Your task to perform on an android device: Go to Amazon Image 0: 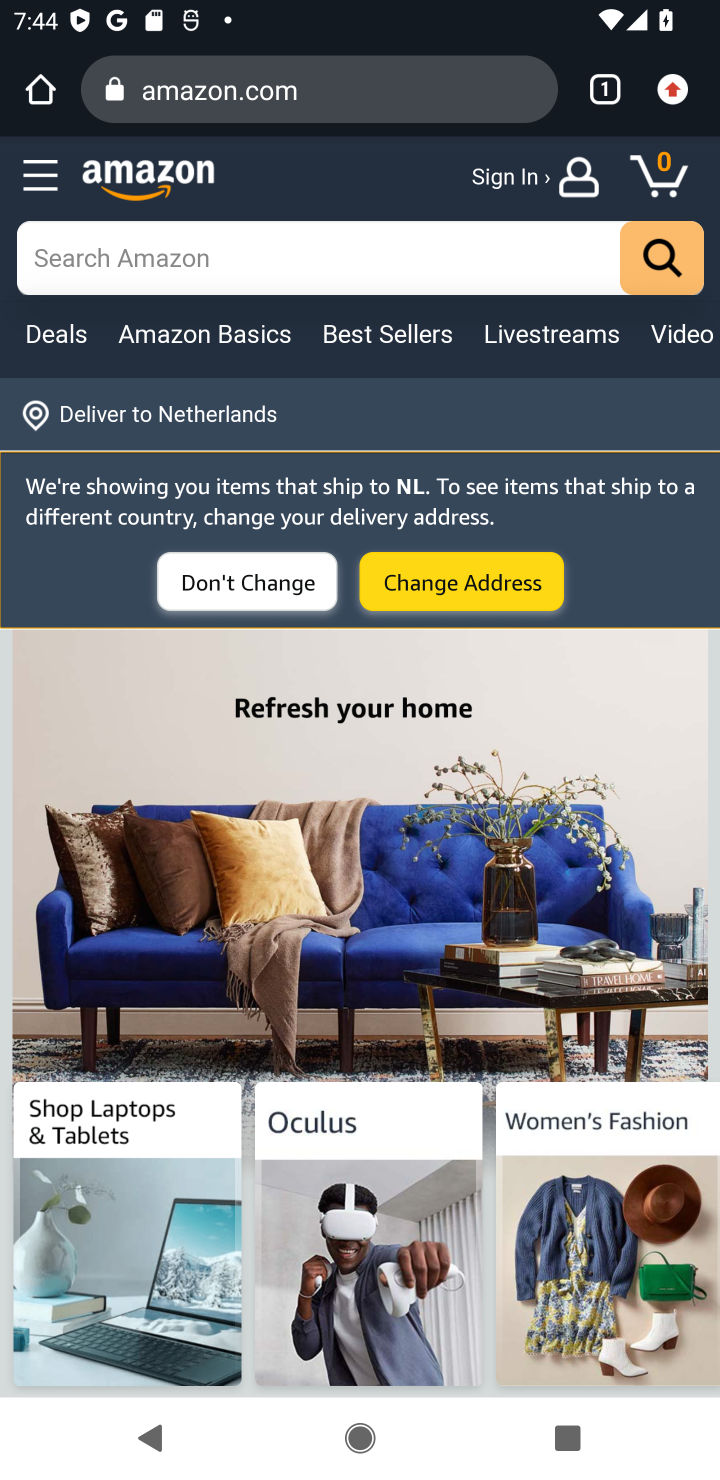
Step 0: press home button
Your task to perform on an android device: Go to Amazon Image 1: 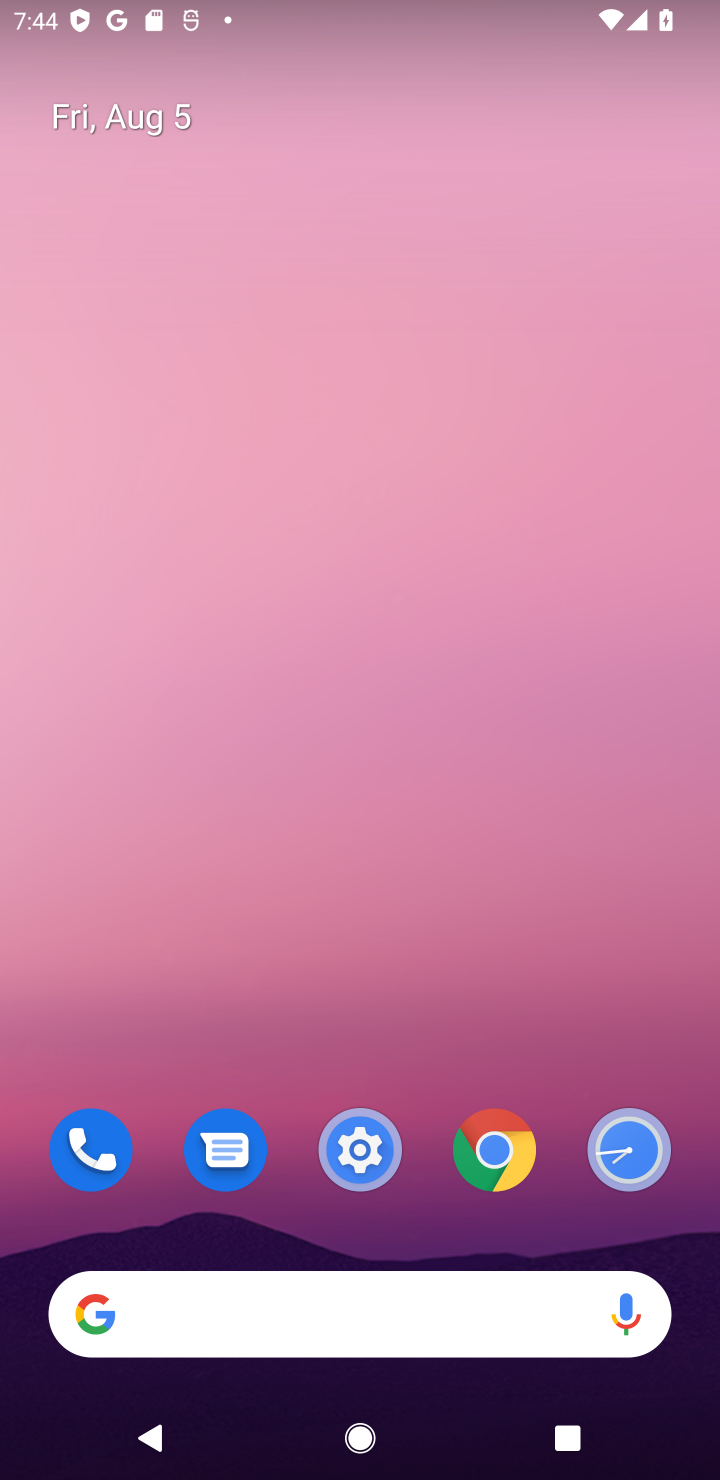
Step 1: drag from (419, 1020) to (435, 413)
Your task to perform on an android device: Go to Amazon Image 2: 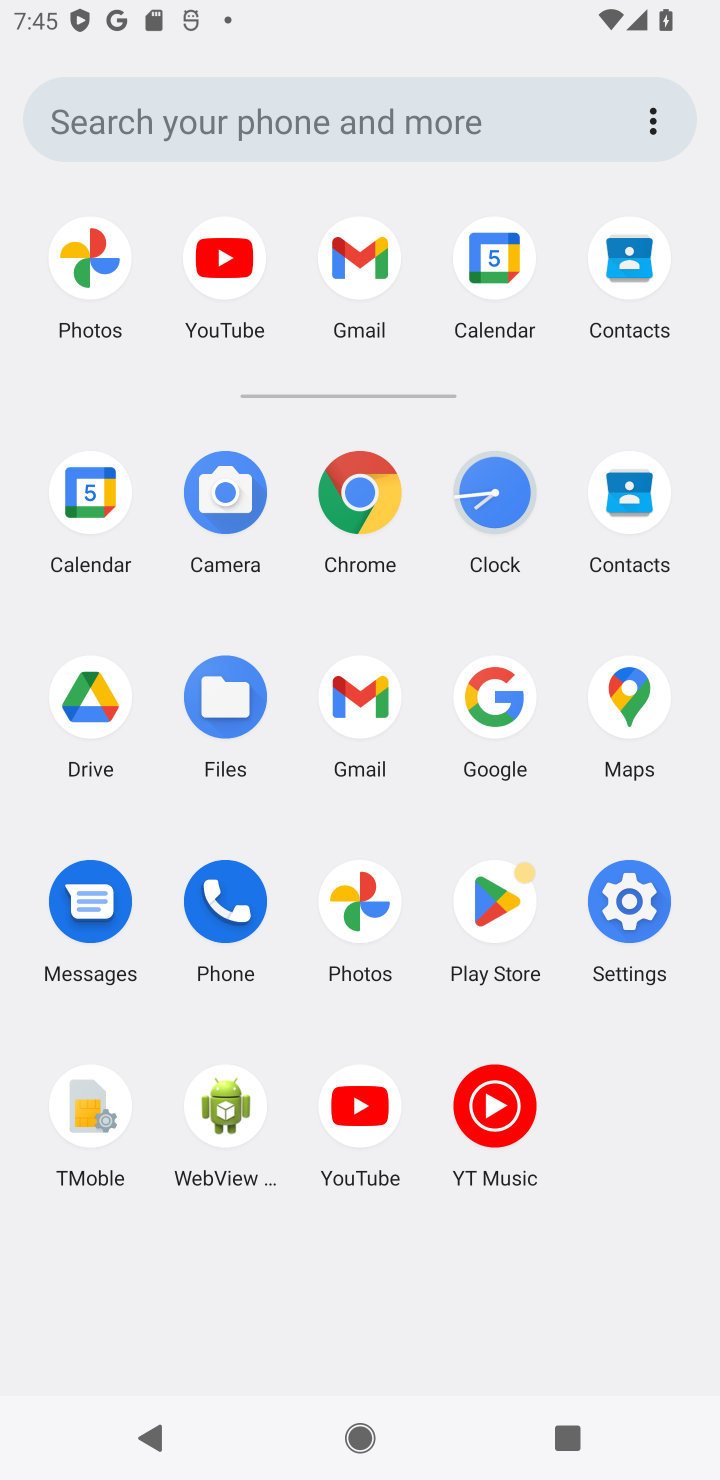
Step 2: click (369, 494)
Your task to perform on an android device: Go to Amazon Image 3: 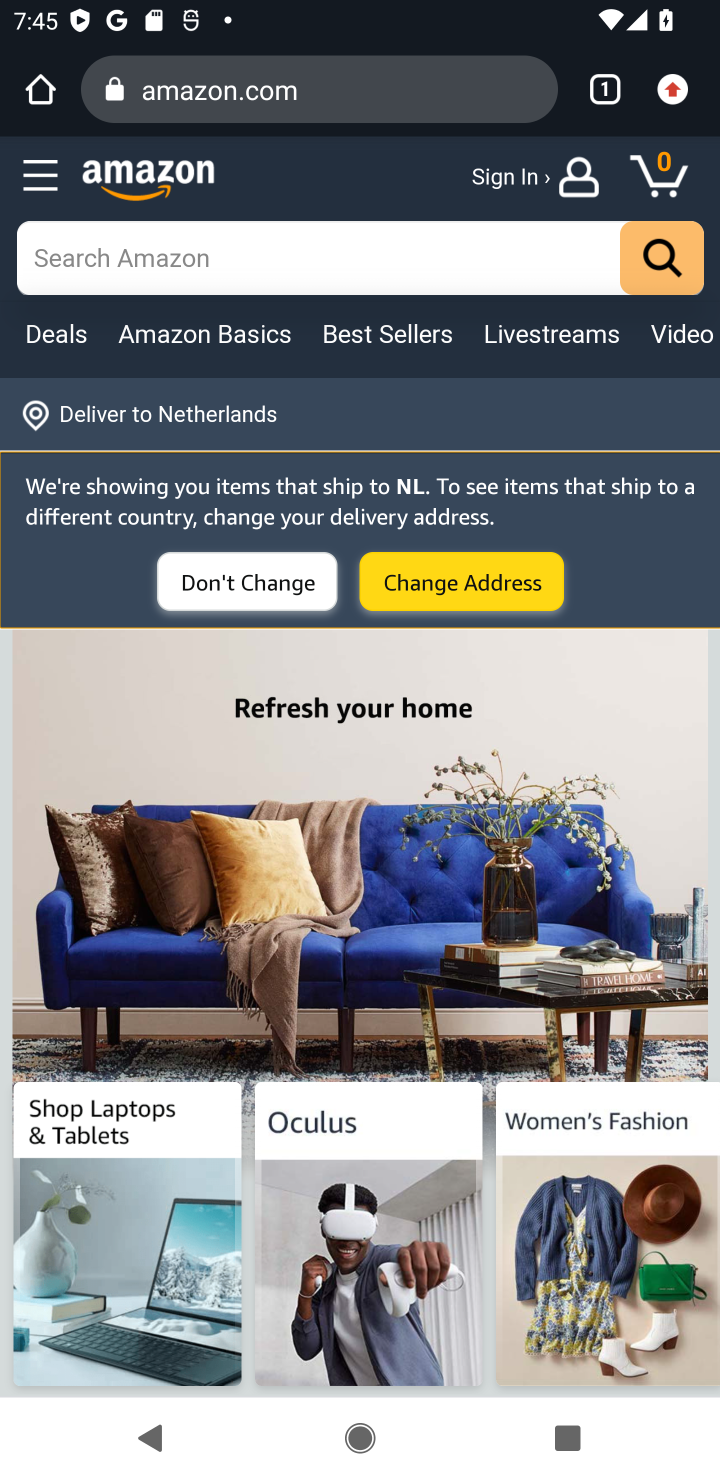
Step 3: task complete